Your task to perform on an android device: turn on priority inbox in the gmail app Image 0: 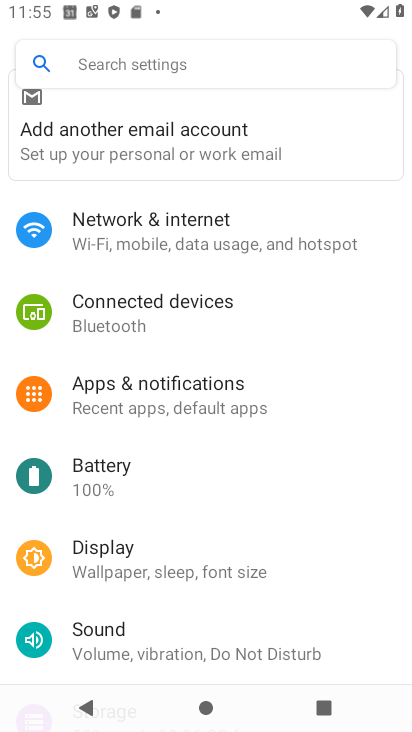
Step 0: press home button
Your task to perform on an android device: turn on priority inbox in the gmail app Image 1: 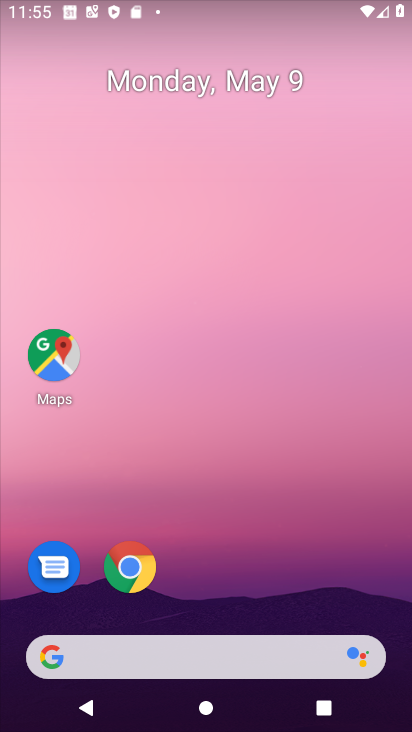
Step 1: drag from (186, 647) to (271, 165)
Your task to perform on an android device: turn on priority inbox in the gmail app Image 2: 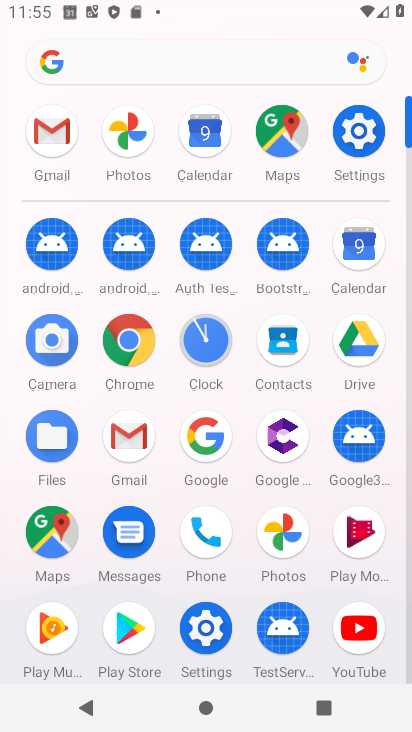
Step 2: click (127, 443)
Your task to perform on an android device: turn on priority inbox in the gmail app Image 3: 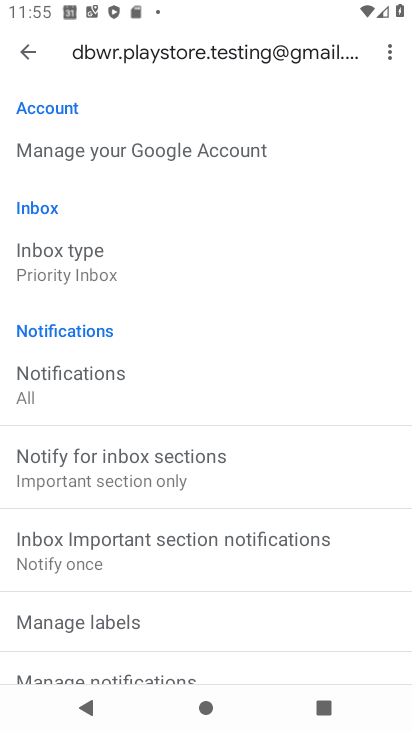
Step 3: click (124, 268)
Your task to perform on an android device: turn on priority inbox in the gmail app Image 4: 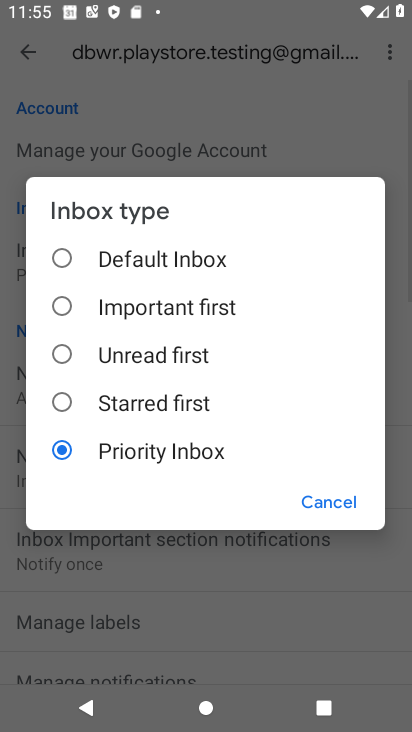
Step 4: click (120, 462)
Your task to perform on an android device: turn on priority inbox in the gmail app Image 5: 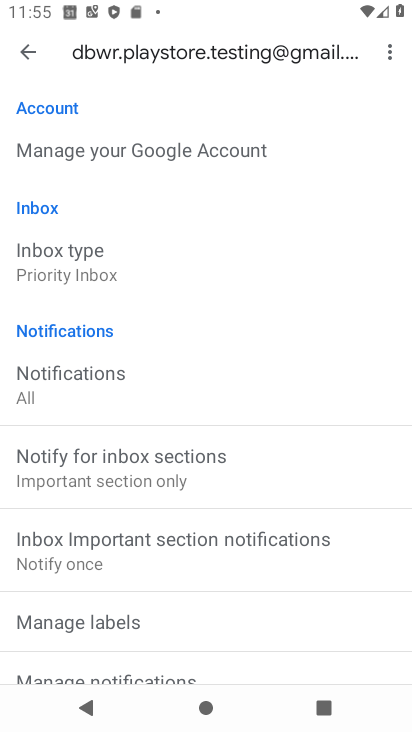
Step 5: task complete